Your task to perform on an android device: open device folders in google photos Image 0: 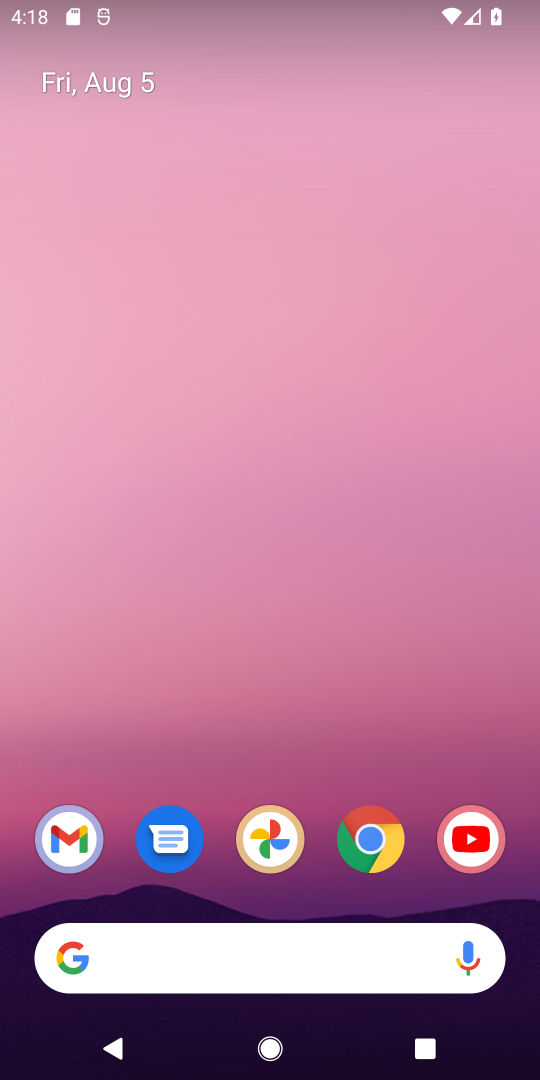
Step 0: click (269, 842)
Your task to perform on an android device: open device folders in google photos Image 1: 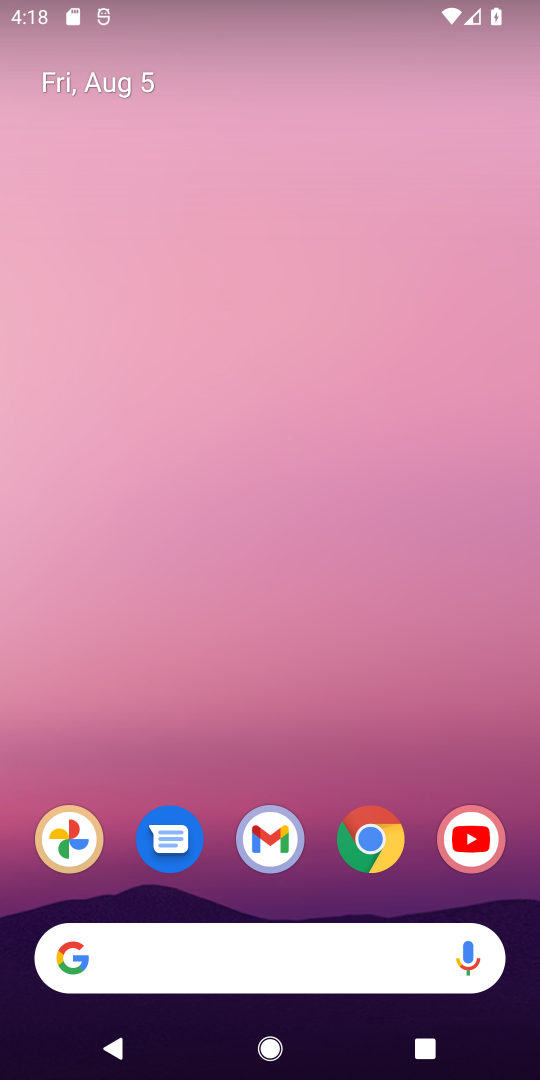
Step 1: click (65, 847)
Your task to perform on an android device: open device folders in google photos Image 2: 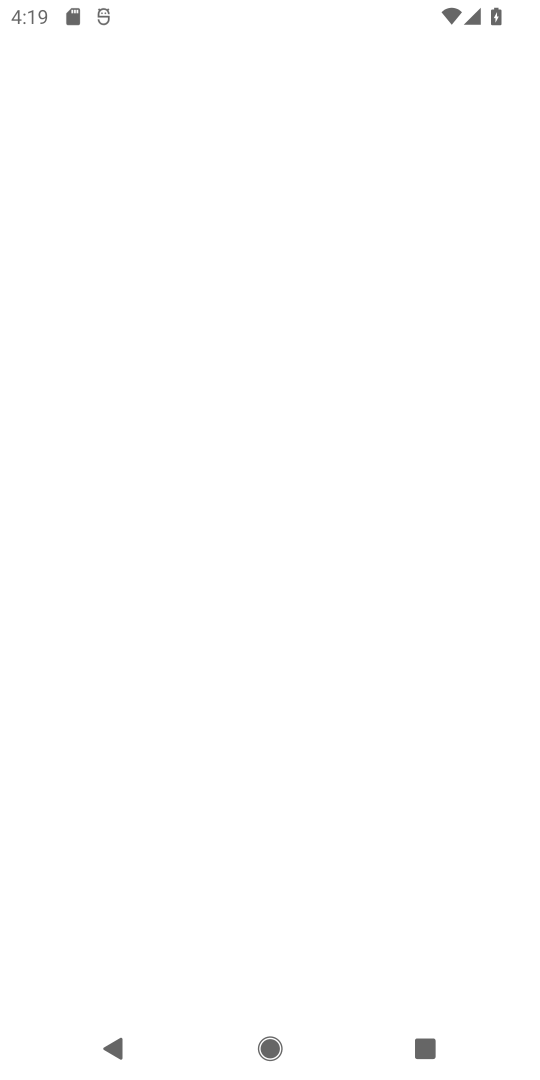
Step 2: task complete